Your task to perform on an android device: change the clock display to analog Image 0: 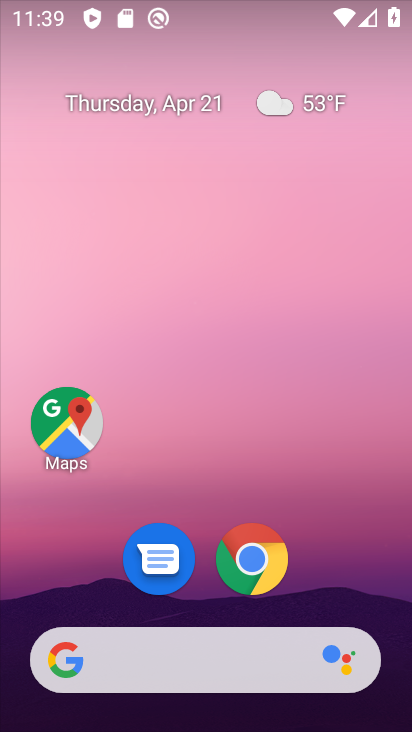
Step 0: drag from (378, 487) to (338, 0)
Your task to perform on an android device: change the clock display to analog Image 1: 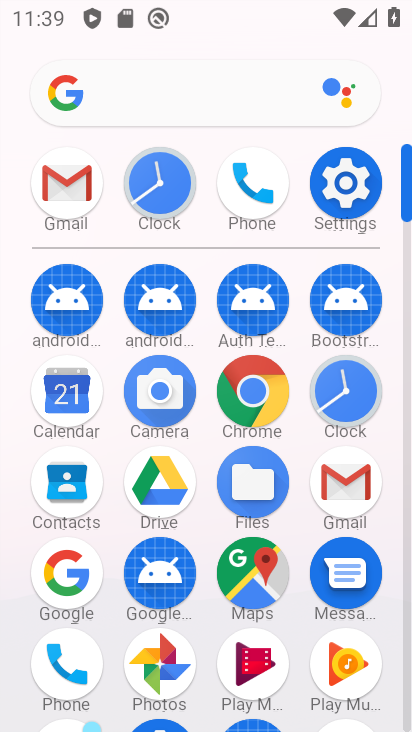
Step 1: click (153, 186)
Your task to perform on an android device: change the clock display to analog Image 2: 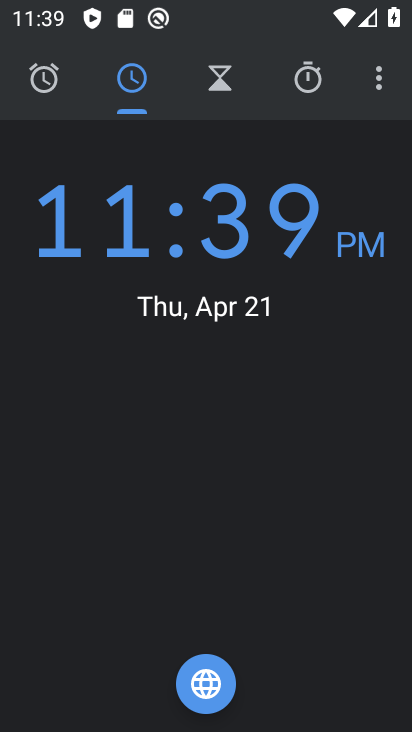
Step 2: click (378, 84)
Your task to perform on an android device: change the clock display to analog Image 3: 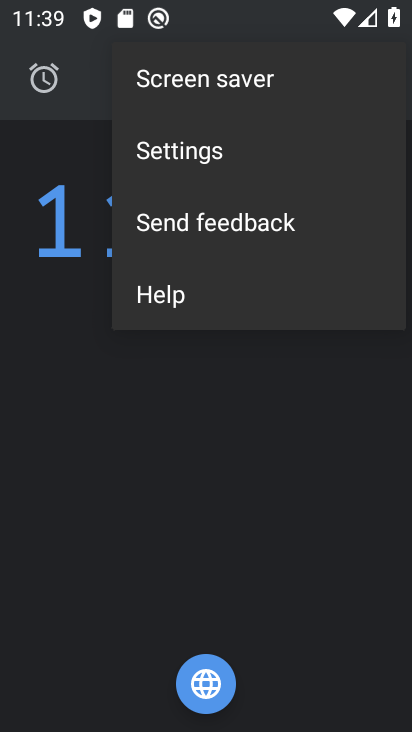
Step 3: click (187, 158)
Your task to perform on an android device: change the clock display to analog Image 4: 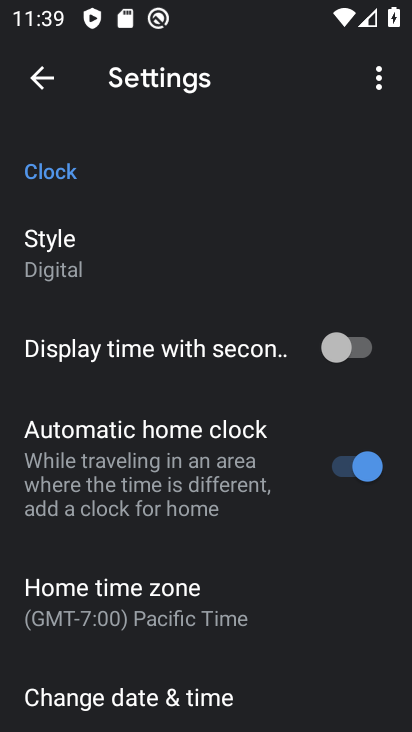
Step 4: click (72, 263)
Your task to perform on an android device: change the clock display to analog Image 5: 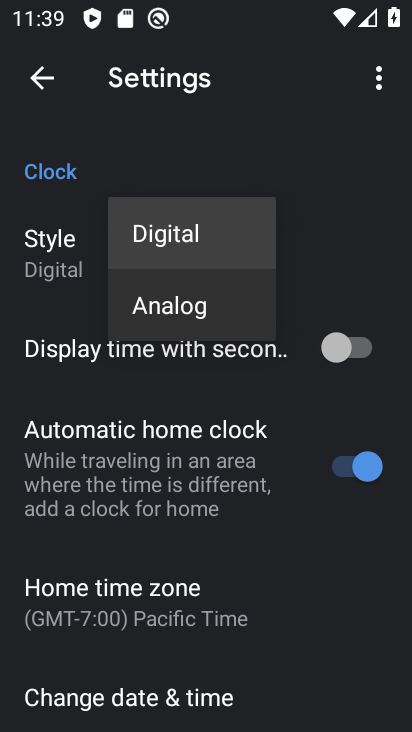
Step 5: click (122, 304)
Your task to perform on an android device: change the clock display to analog Image 6: 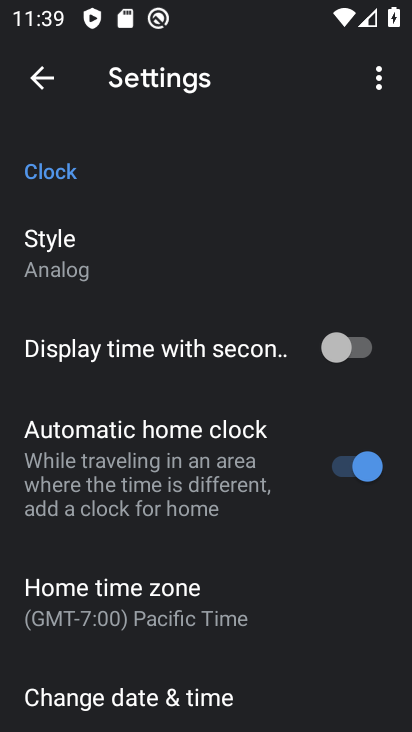
Step 6: task complete